Your task to perform on an android device: Open Google Maps and go to "Timeline" Image 0: 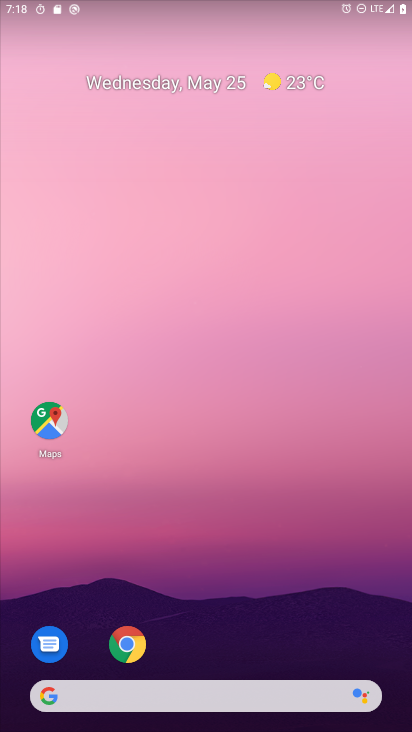
Step 0: drag from (334, 633) to (226, 33)
Your task to perform on an android device: Open Google Maps and go to "Timeline" Image 1: 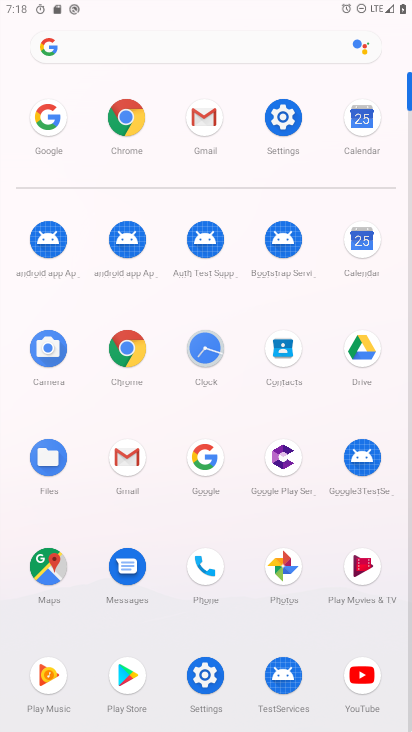
Step 1: click (47, 569)
Your task to perform on an android device: Open Google Maps and go to "Timeline" Image 2: 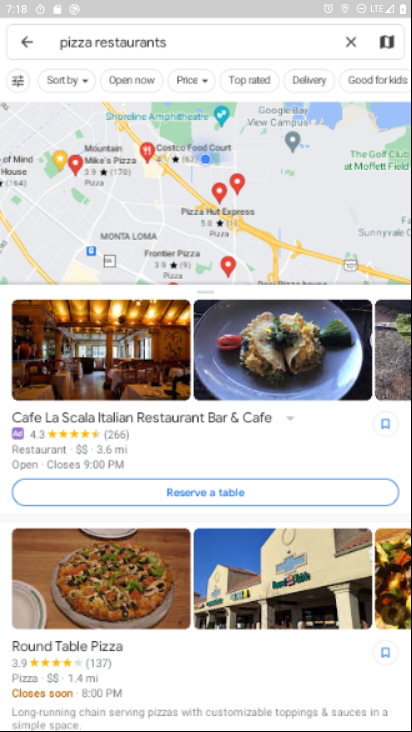
Step 2: press back button
Your task to perform on an android device: Open Google Maps and go to "Timeline" Image 3: 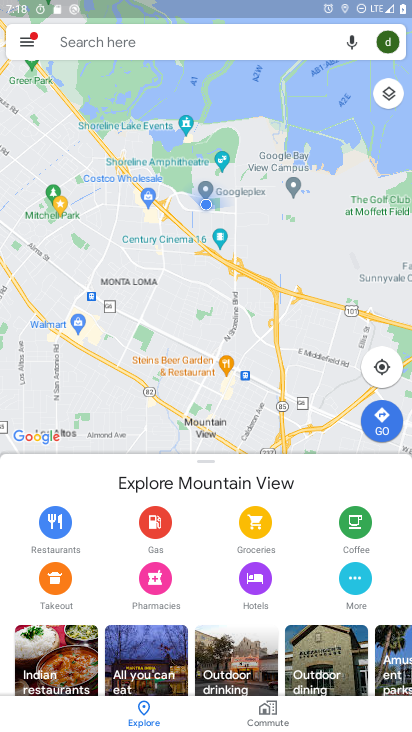
Step 3: click (34, 42)
Your task to perform on an android device: Open Google Maps and go to "Timeline" Image 4: 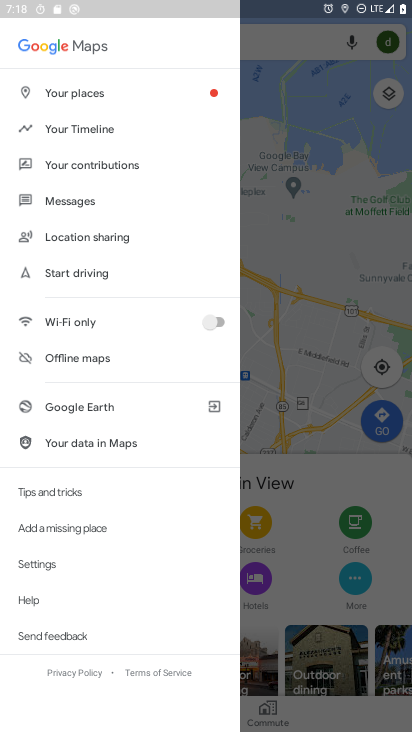
Step 4: click (109, 131)
Your task to perform on an android device: Open Google Maps and go to "Timeline" Image 5: 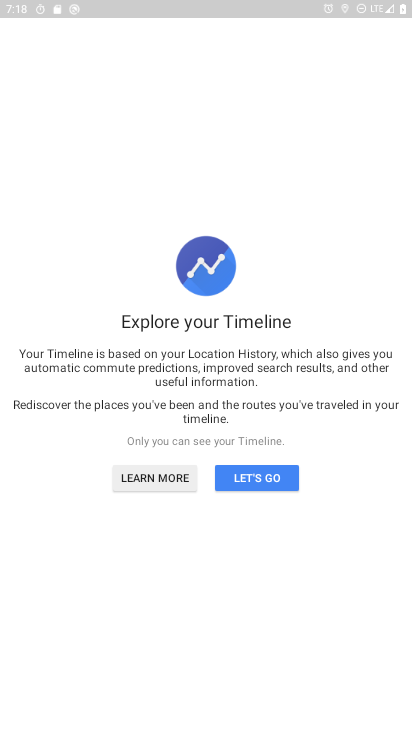
Step 5: task complete